Your task to perform on an android device: Add logitech g pro to the cart on amazon.com Image 0: 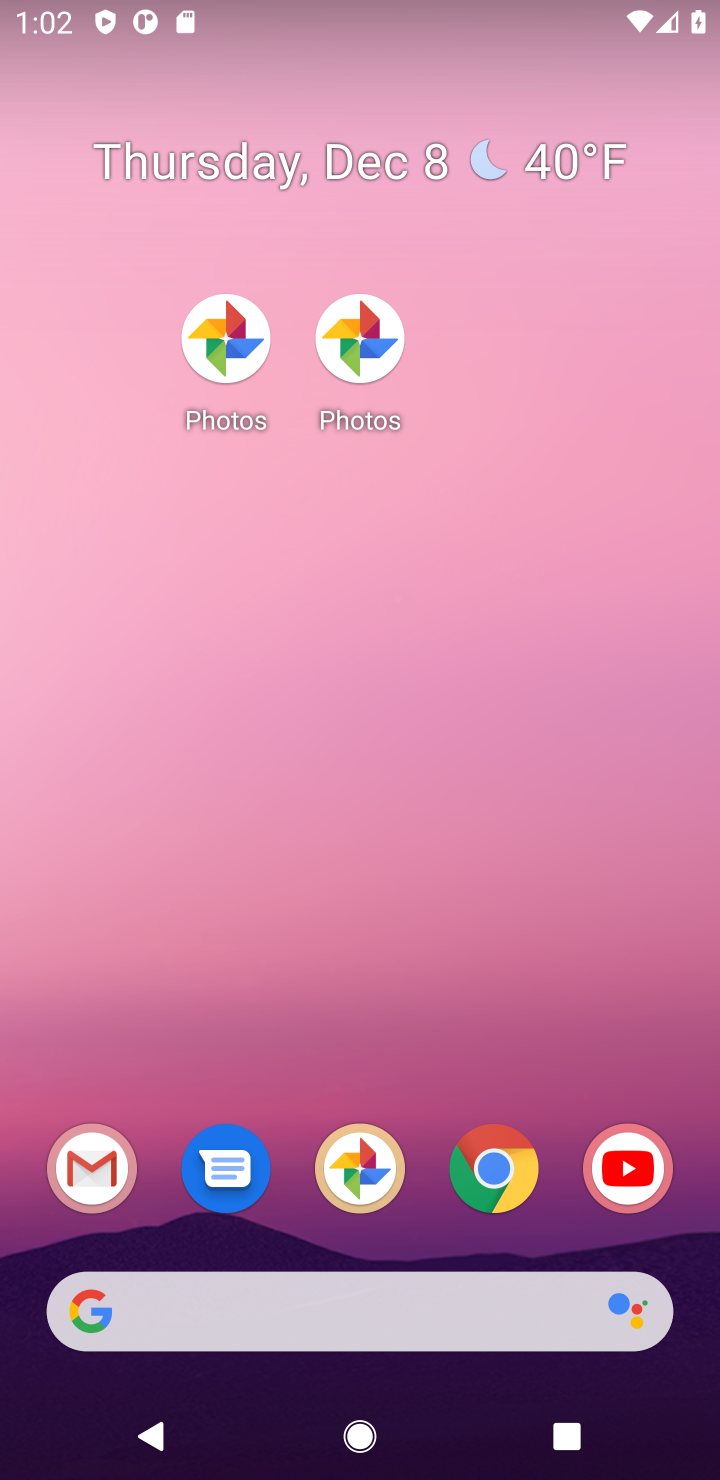
Step 0: drag from (337, 1026) to (323, 46)
Your task to perform on an android device: Add logitech g pro to the cart on amazon.com Image 1: 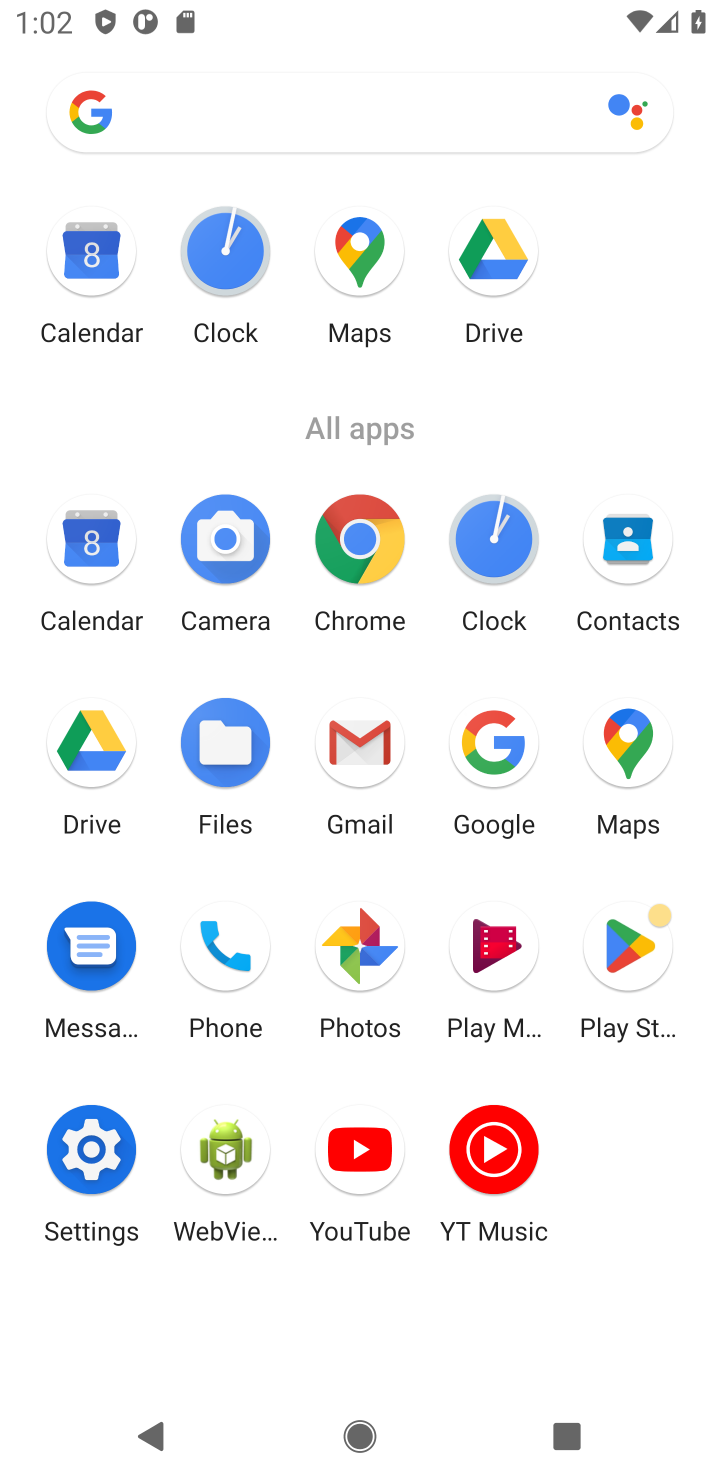
Step 1: click (487, 728)
Your task to perform on an android device: Add logitech g pro to the cart on amazon.com Image 2: 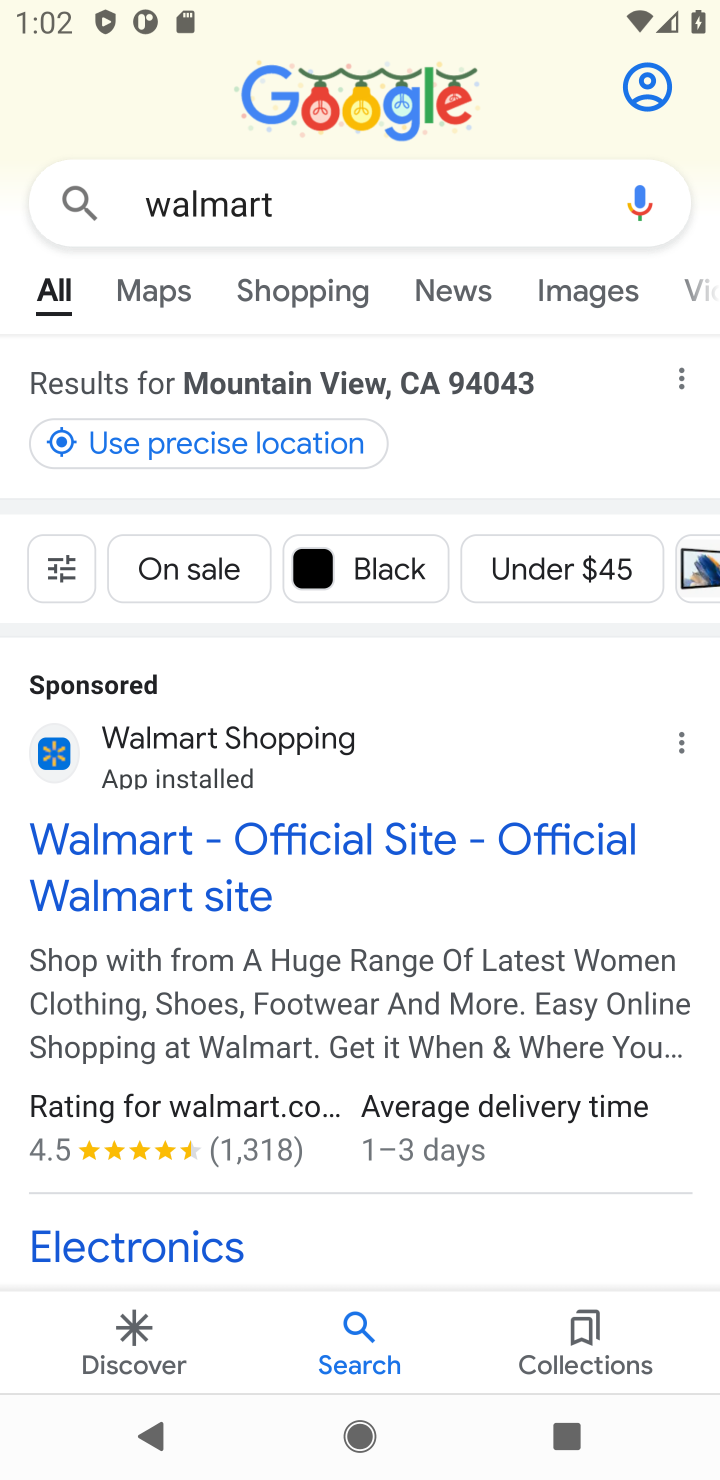
Step 2: click (189, 201)
Your task to perform on an android device: Add logitech g pro to the cart on amazon.com Image 3: 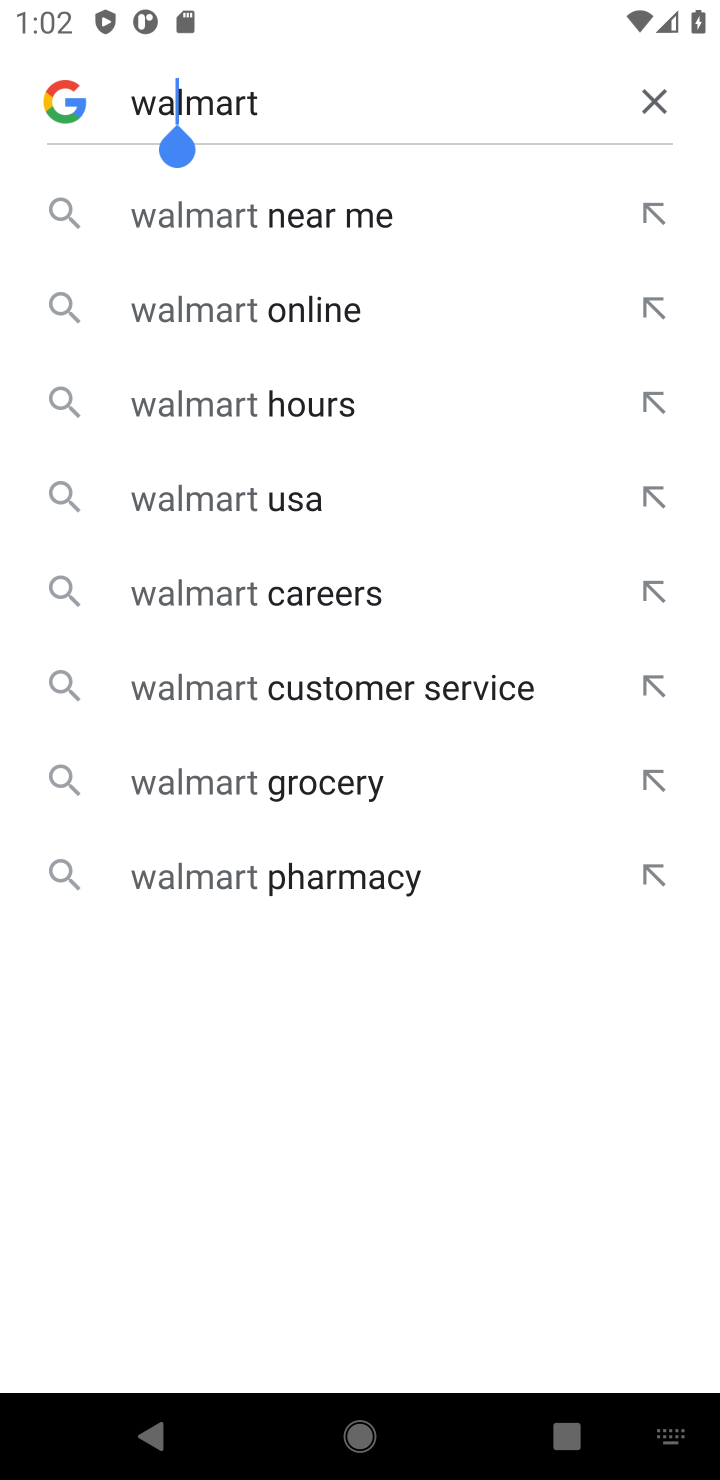
Step 3: click (656, 108)
Your task to perform on an android device: Add logitech g pro to the cart on amazon.com Image 4: 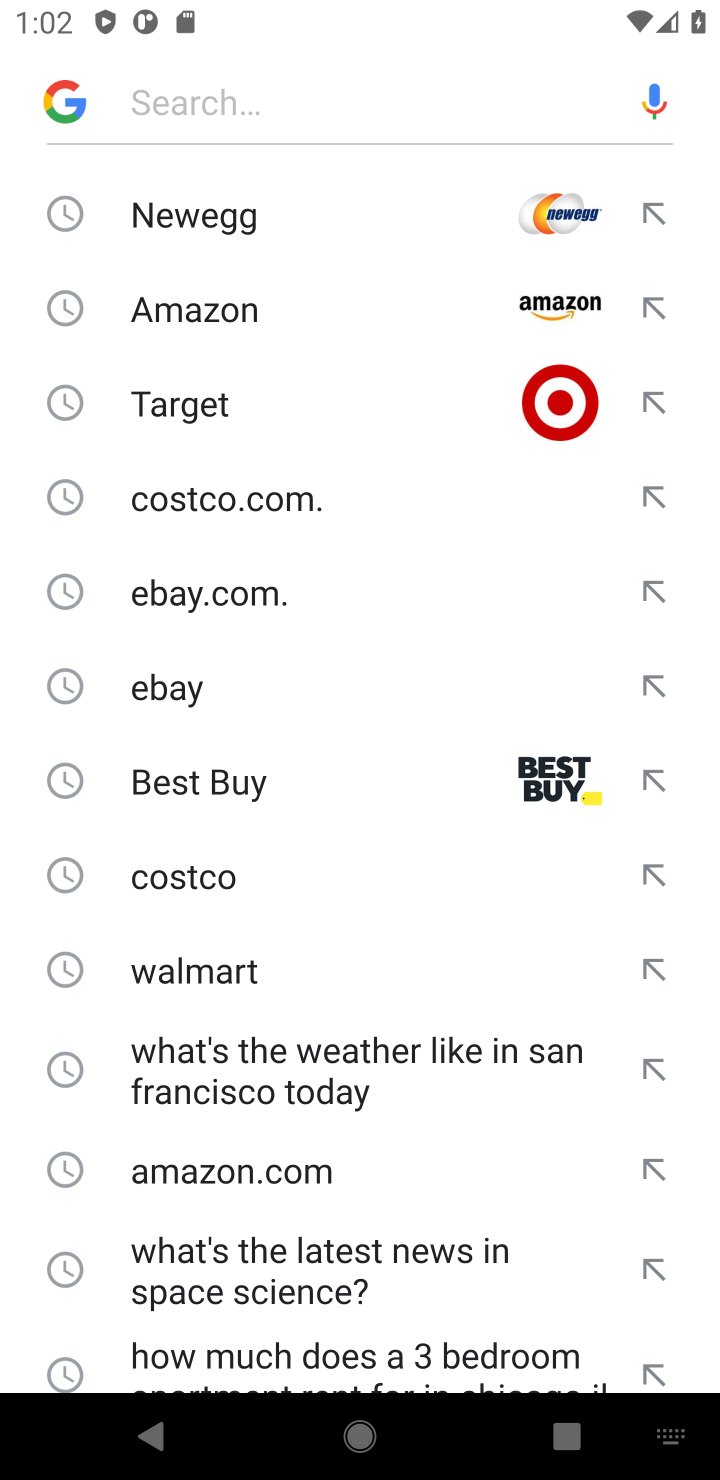
Step 4: click (224, 305)
Your task to perform on an android device: Add logitech g pro to the cart on amazon.com Image 5: 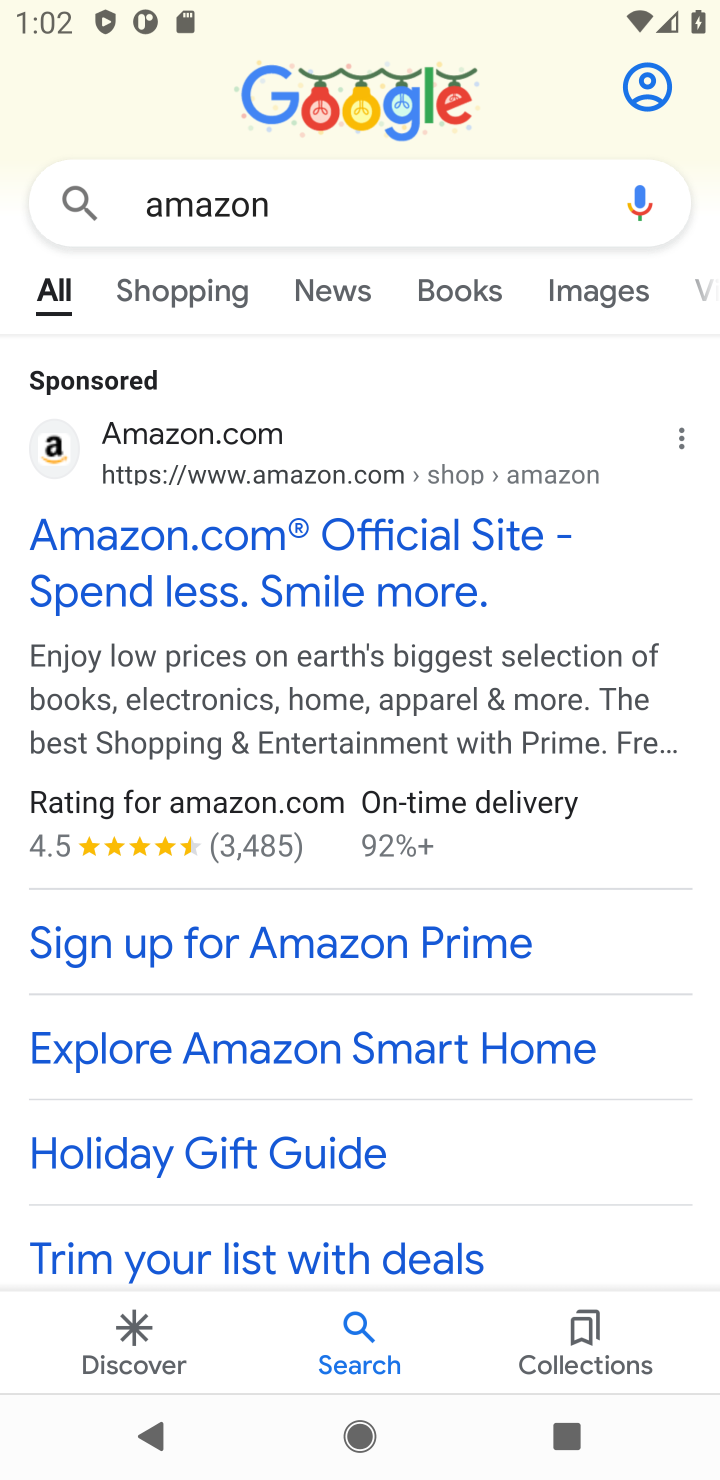
Step 5: click (226, 548)
Your task to perform on an android device: Add logitech g pro to the cart on amazon.com Image 6: 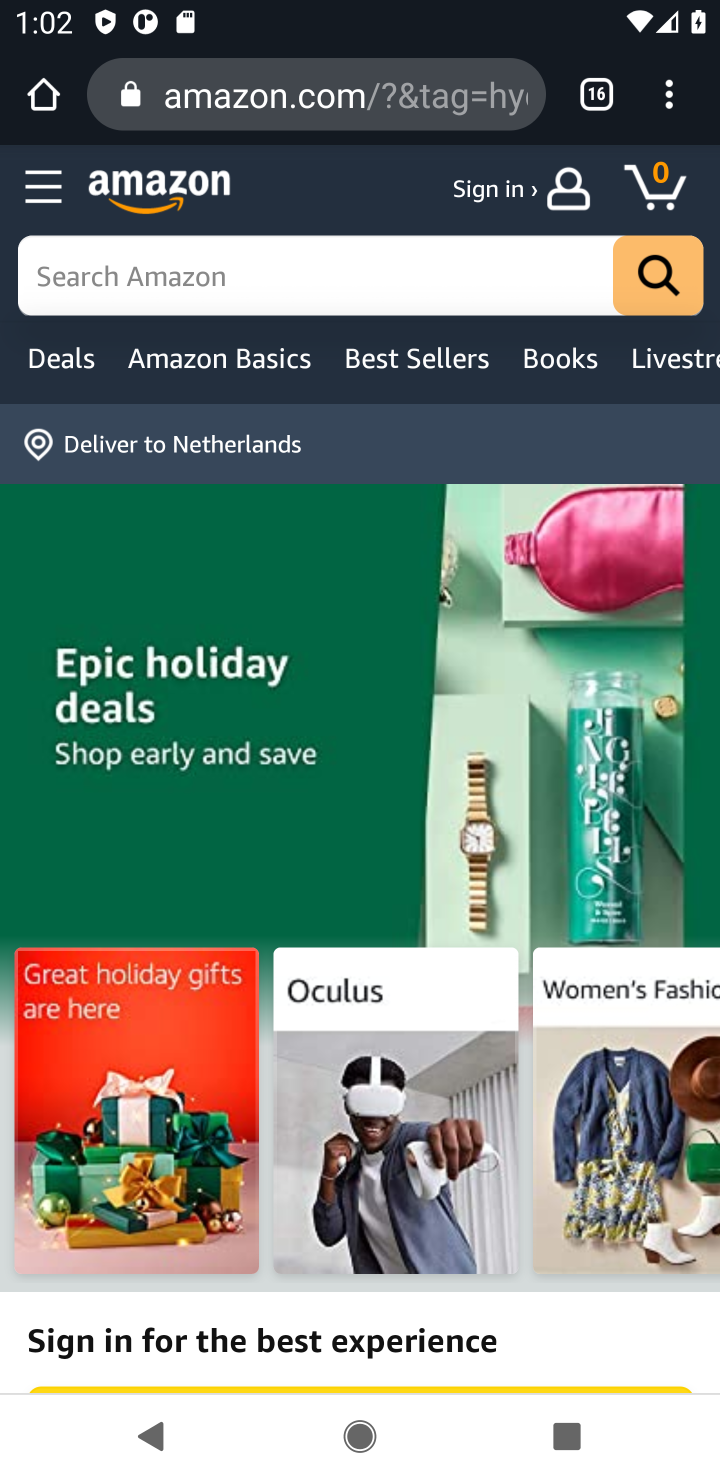
Step 6: click (143, 275)
Your task to perform on an android device: Add logitech g pro to the cart on amazon.com Image 7: 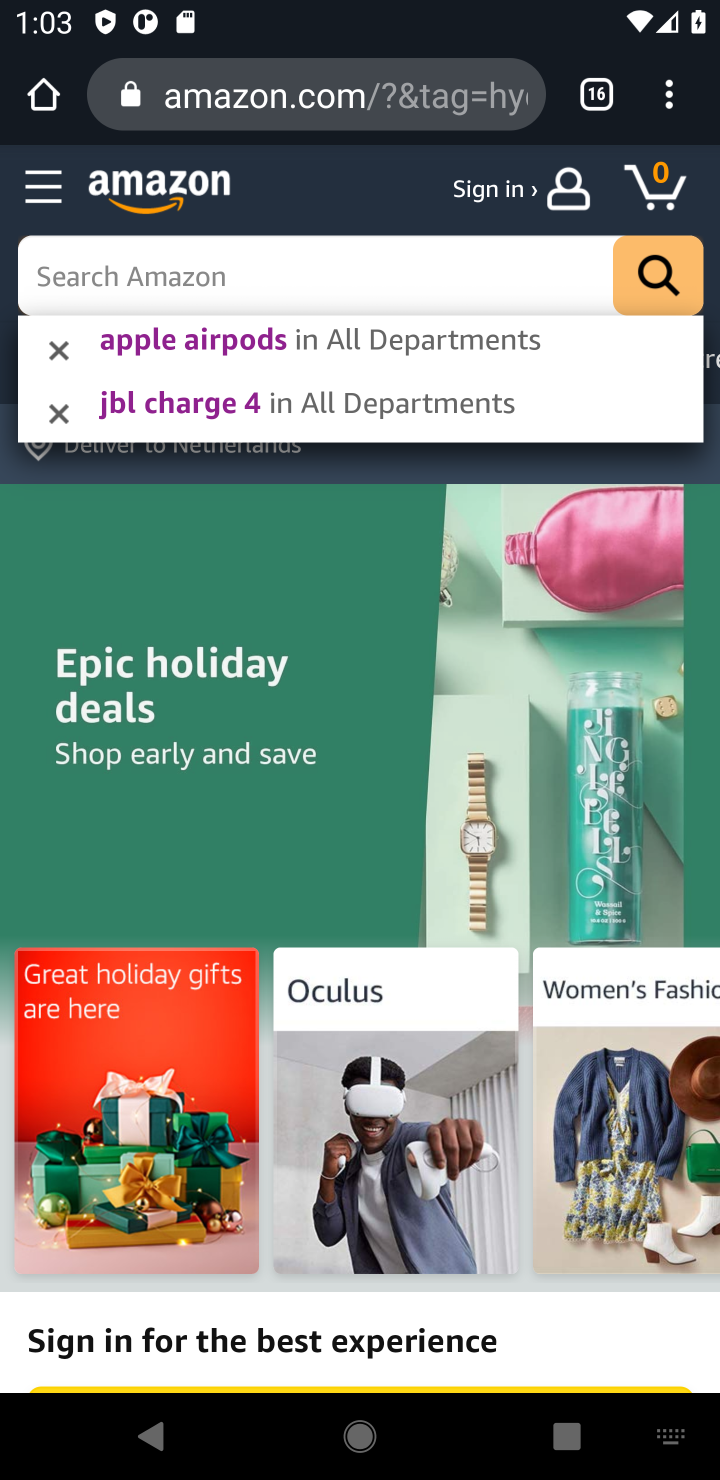
Step 7: click (107, 266)
Your task to perform on an android device: Add logitech g pro to the cart on amazon.com Image 8: 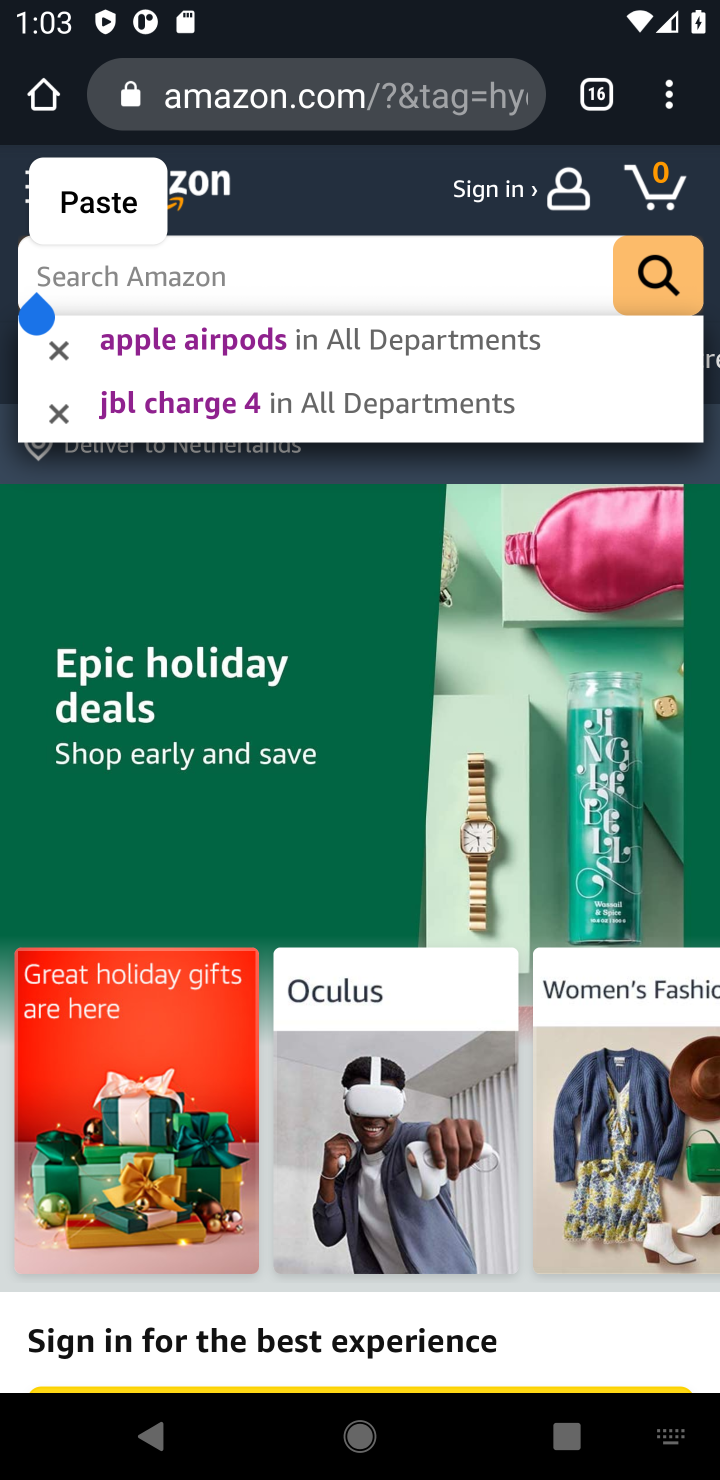
Step 8: type "logitech g pro"
Your task to perform on an android device: Add logitech g pro to the cart on amazon.com Image 9: 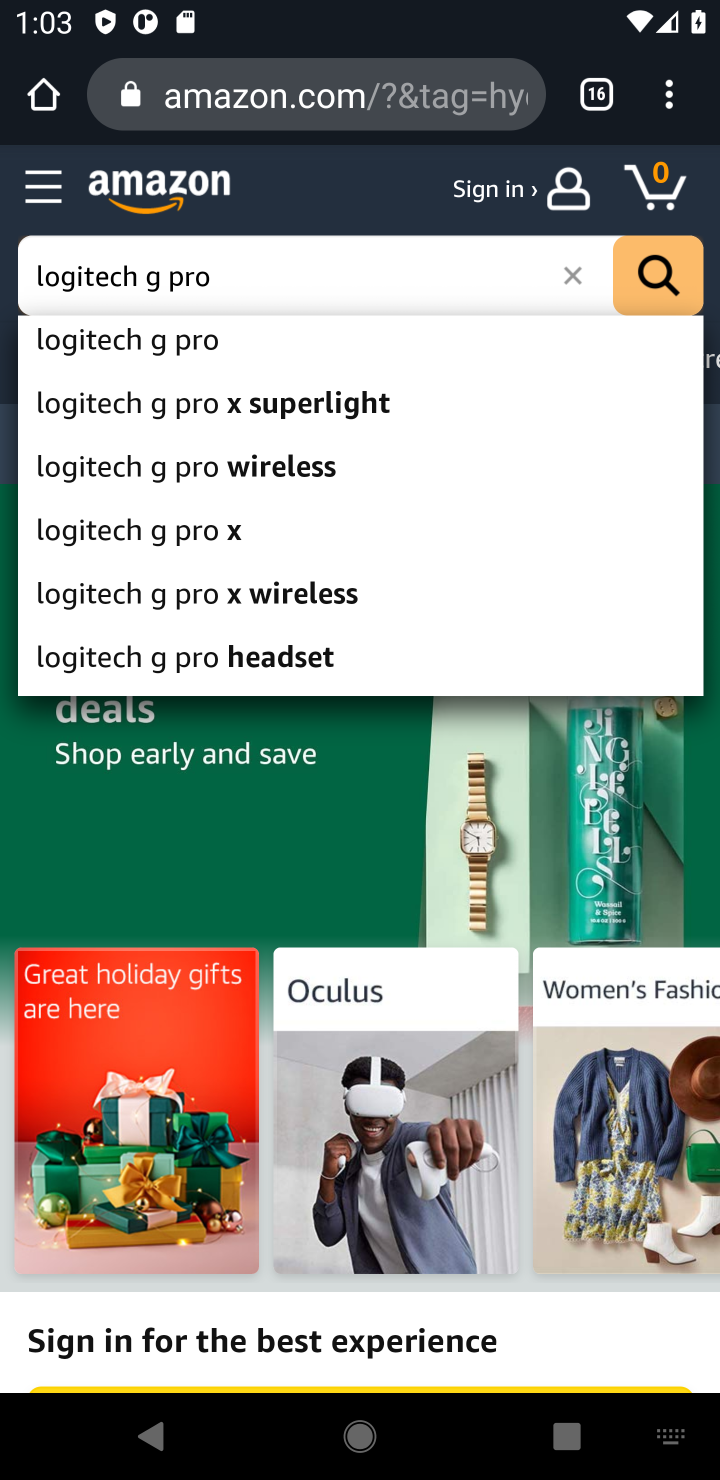
Step 9: click (154, 343)
Your task to perform on an android device: Add logitech g pro to the cart on amazon.com Image 10: 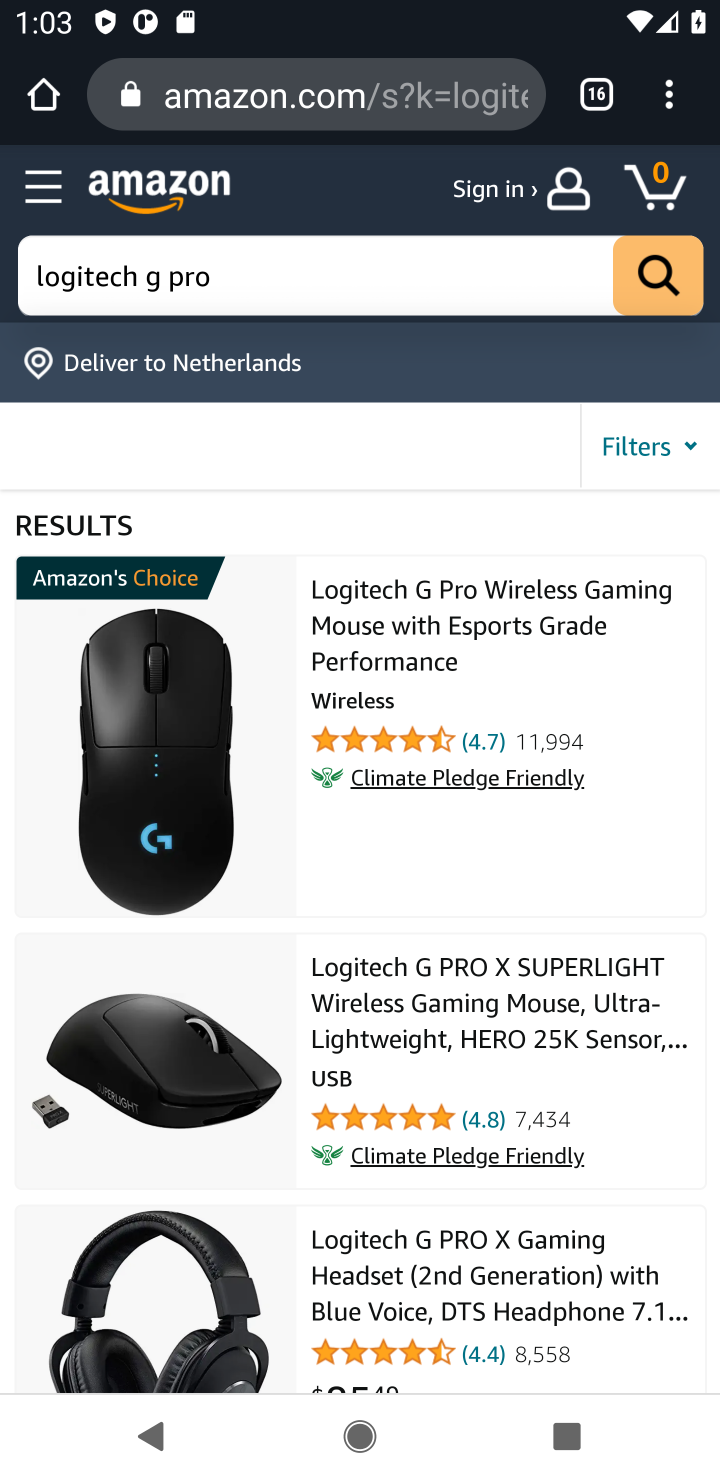
Step 10: click (355, 628)
Your task to perform on an android device: Add logitech g pro to the cart on amazon.com Image 11: 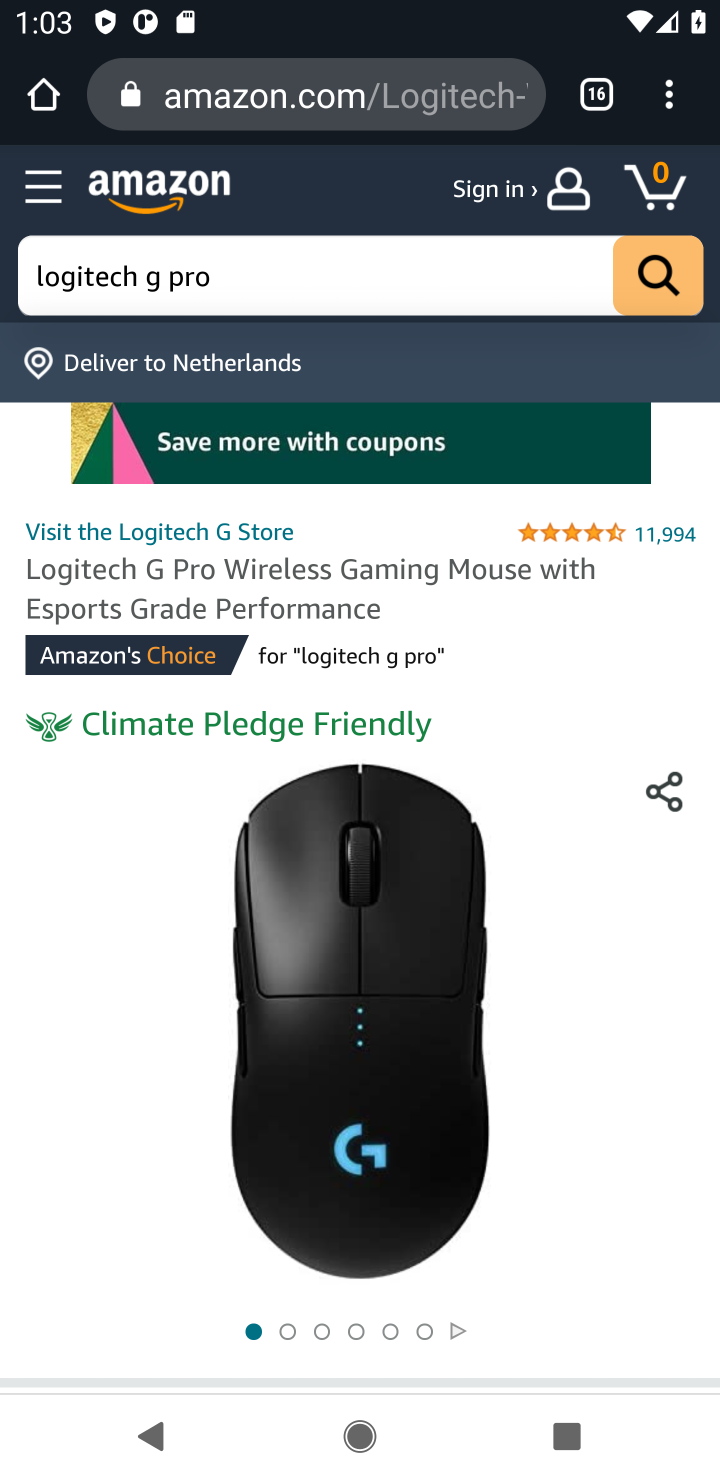
Step 11: task complete